Your task to perform on an android device: Go to privacy settings Image 0: 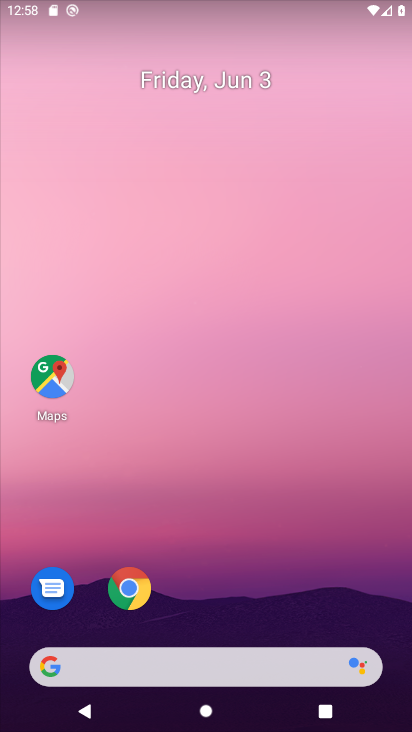
Step 0: drag from (297, 629) to (245, 249)
Your task to perform on an android device: Go to privacy settings Image 1: 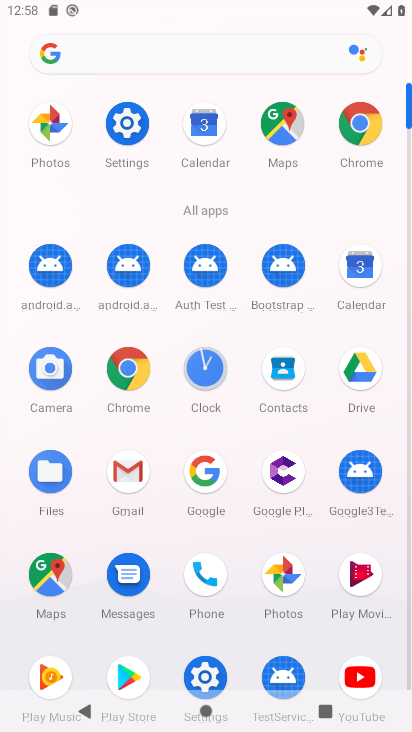
Step 1: click (124, 133)
Your task to perform on an android device: Go to privacy settings Image 2: 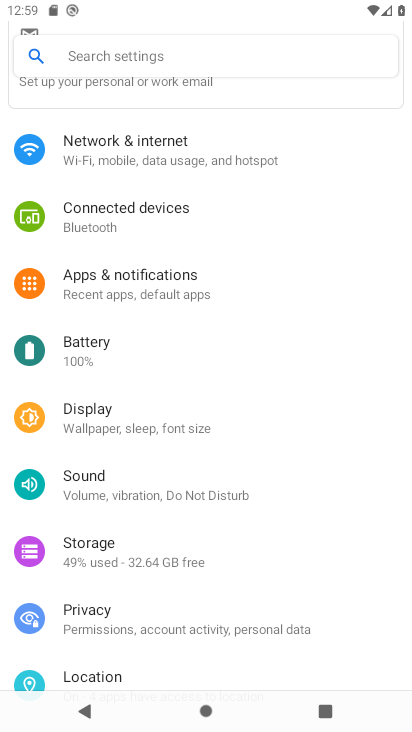
Step 2: click (195, 616)
Your task to perform on an android device: Go to privacy settings Image 3: 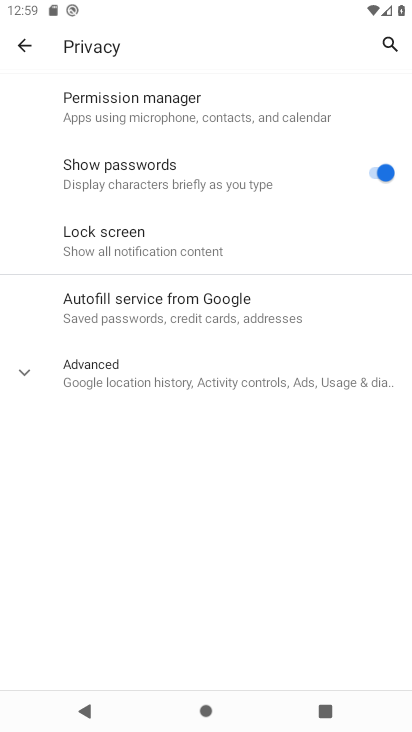
Step 3: click (217, 638)
Your task to perform on an android device: Go to privacy settings Image 4: 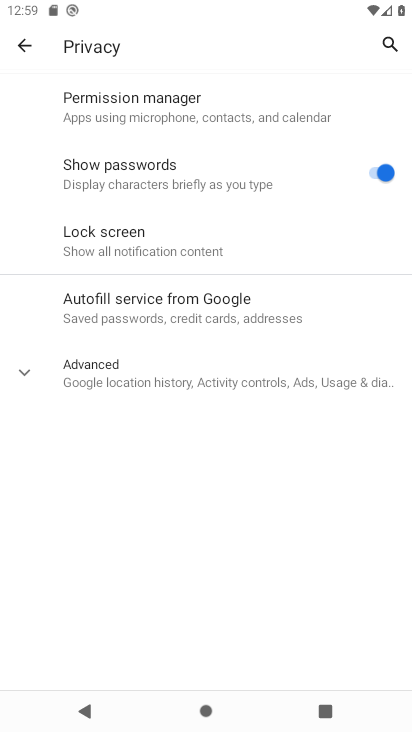
Step 4: task complete